Your task to perform on an android device: Go to eBay Image 0: 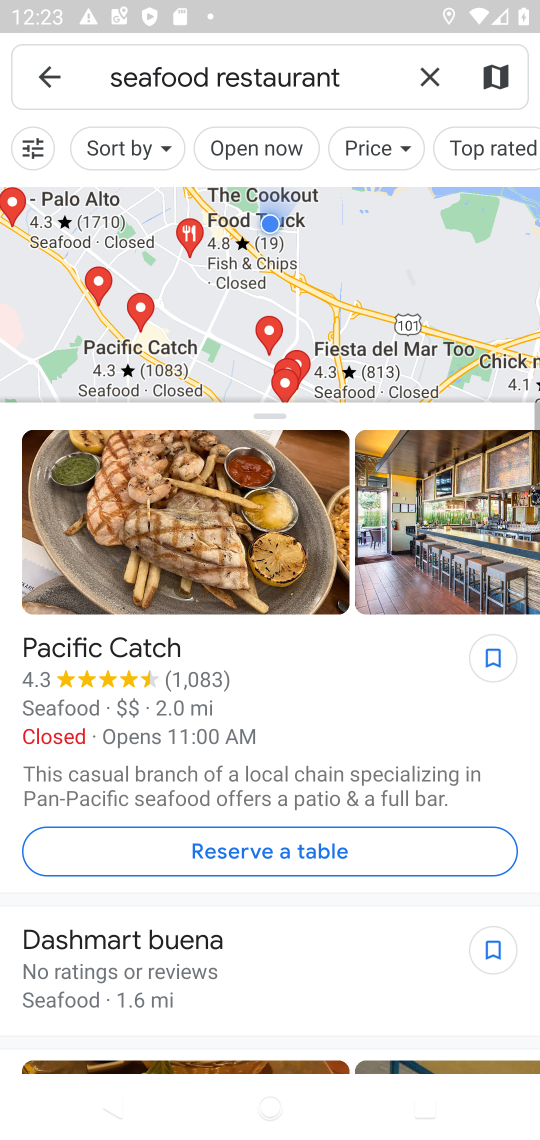
Step 0: press home button
Your task to perform on an android device: Go to eBay Image 1: 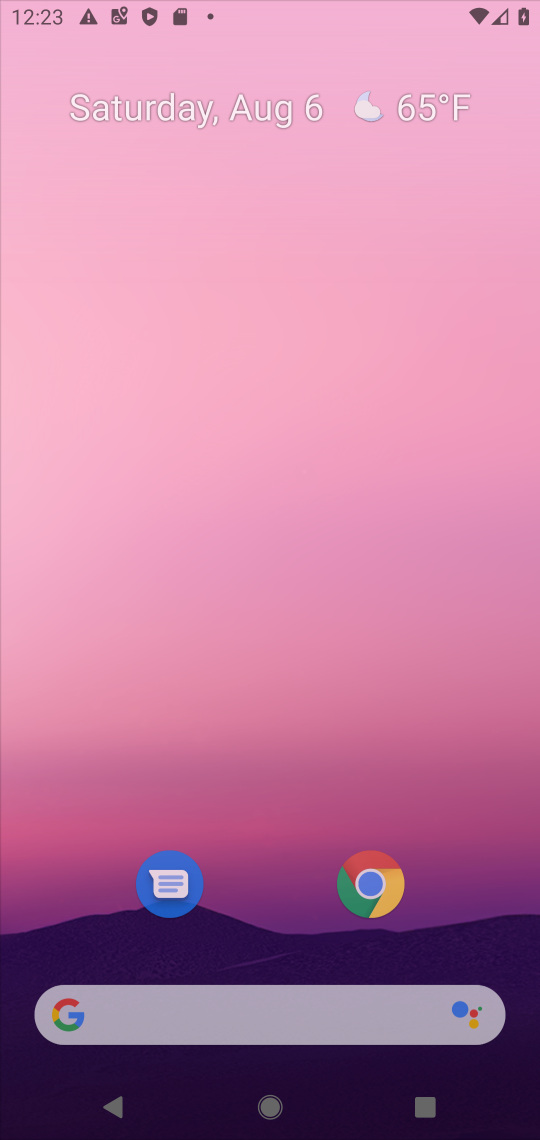
Step 1: press home button
Your task to perform on an android device: Go to eBay Image 2: 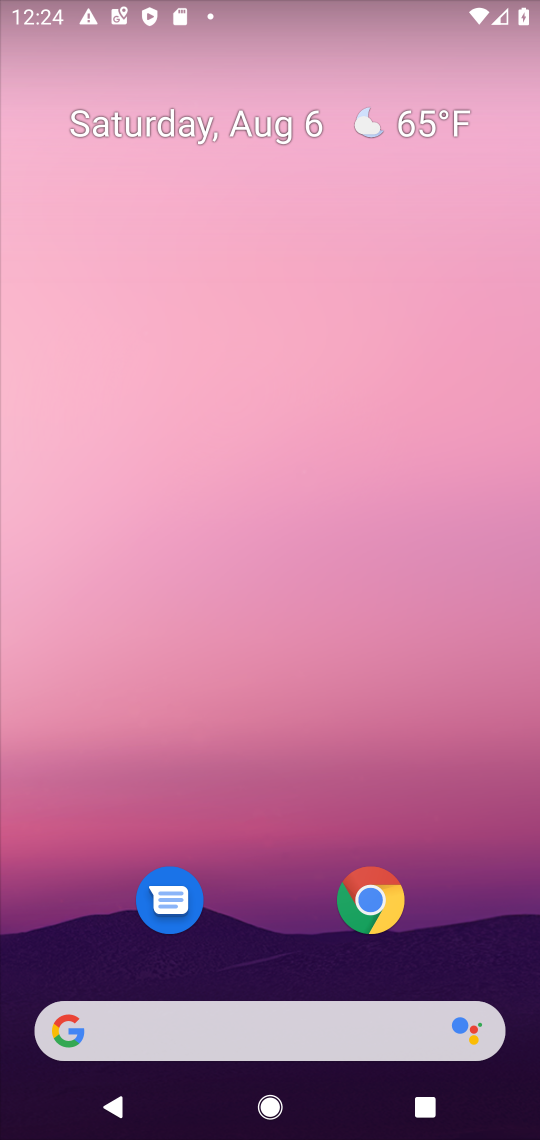
Step 2: drag from (273, 896) to (276, 126)
Your task to perform on an android device: Go to eBay Image 3: 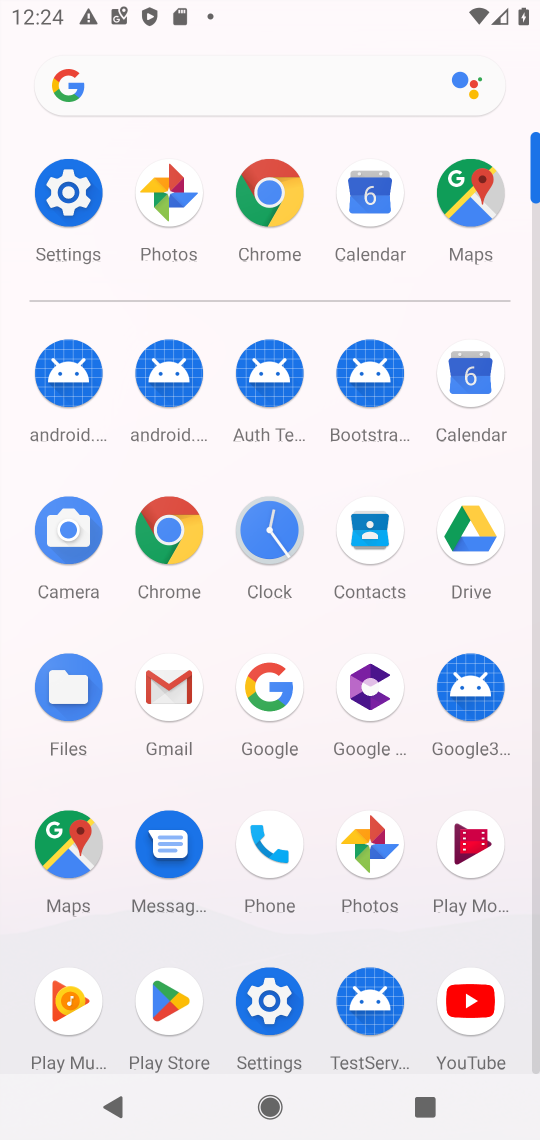
Step 3: click (162, 532)
Your task to perform on an android device: Go to eBay Image 4: 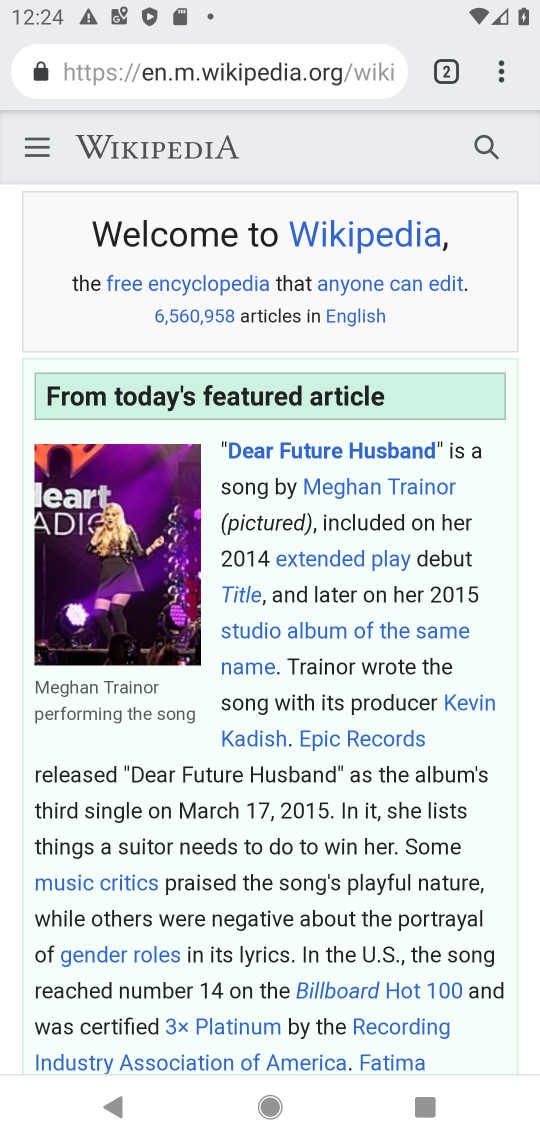
Step 4: drag from (502, 78) to (231, 159)
Your task to perform on an android device: Go to eBay Image 5: 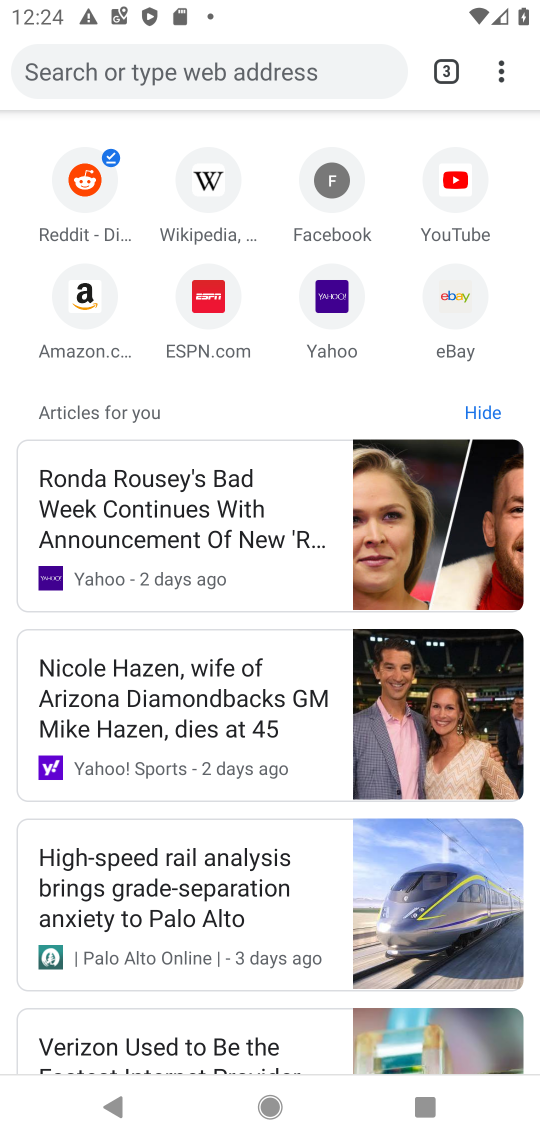
Step 5: click (459, 300)
Your task to perform on an android device: Go to eBay Image 6: 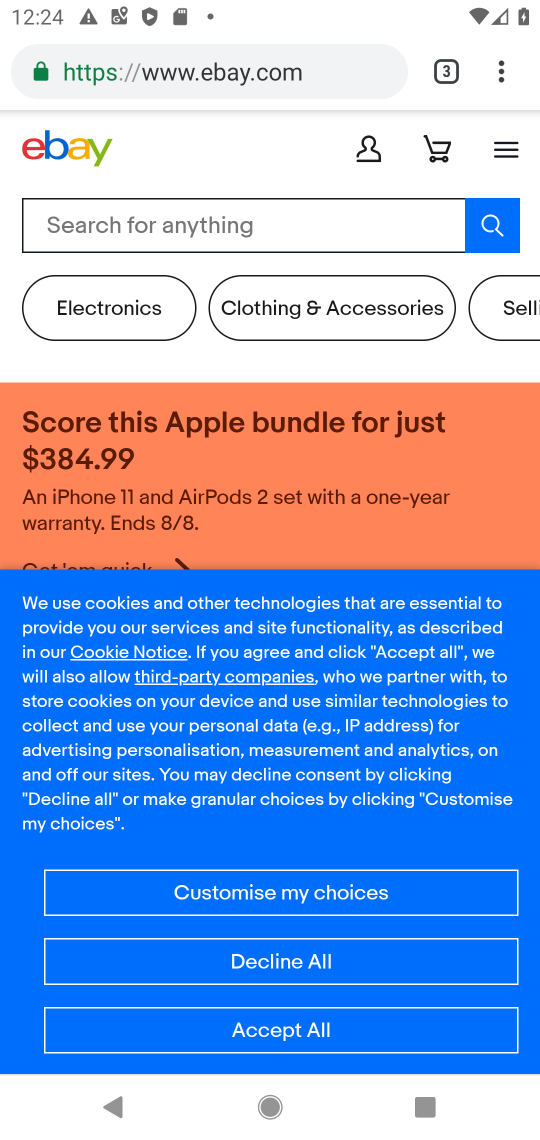
Step 6: task complete